Your task to perform on an android device: toggle improve location accuracy Image 0: 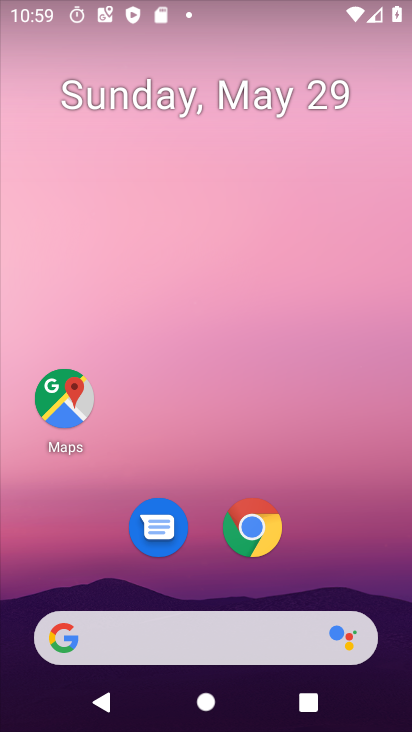
Step 0: drag from (338, 542) to (243, 129)
Your task to perform on an android device: toggle improve location accuracy Image 1: 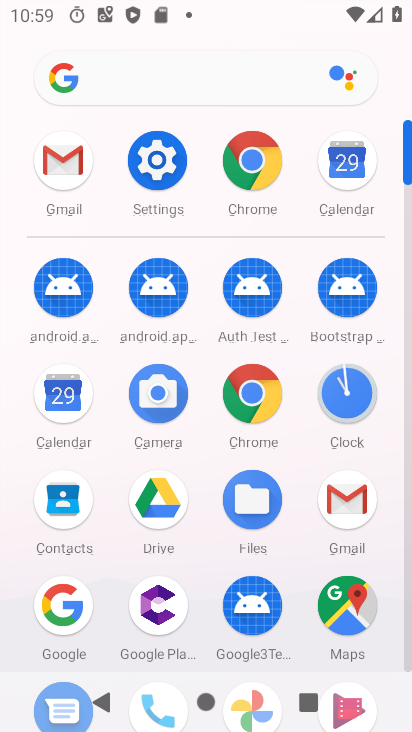
Step 1: click (151, 168)
Your task to perform on an android device: toggle improve location accuracy Image 2: 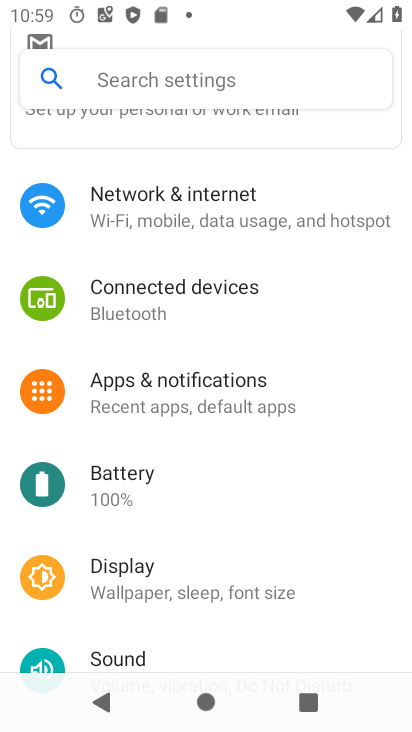
Step 2: drag from (231, 569) to (207, 239)
Your task to perform on an android device: toggle improve location accuracy Image 3: 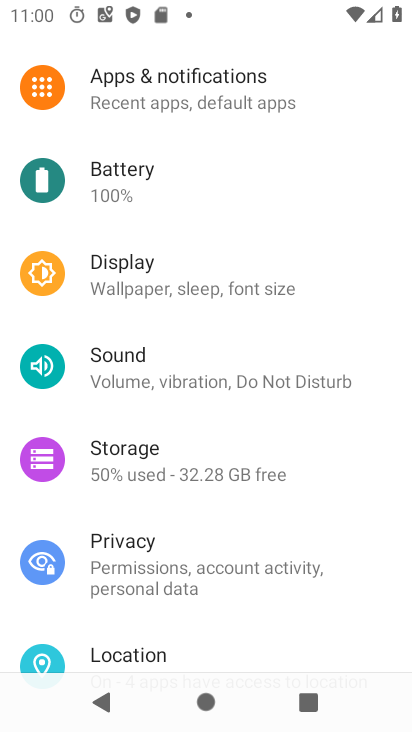
Step 3: click (157, 661)
Your task to perform on an android device: toggle improve location accuracy Image 4: 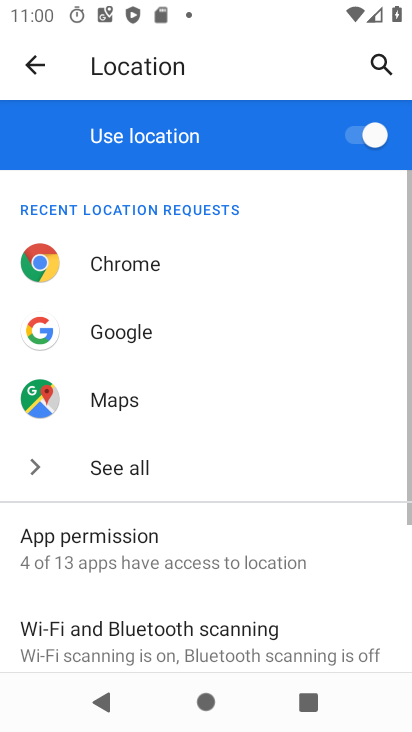
Step 4: drag from (239, 595) to (254, 180)
Your task to perform on an android device: toggle improve location accuracy Image 5: 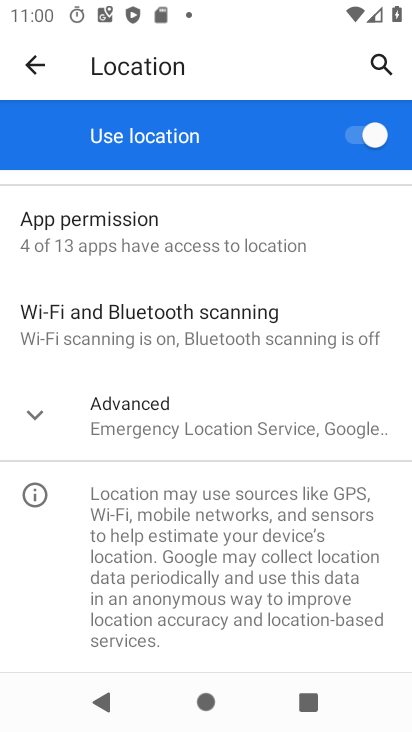
Step 5: click (240, 444)
Your task to perform on an android device: toggle improve location accuracy Image 6: 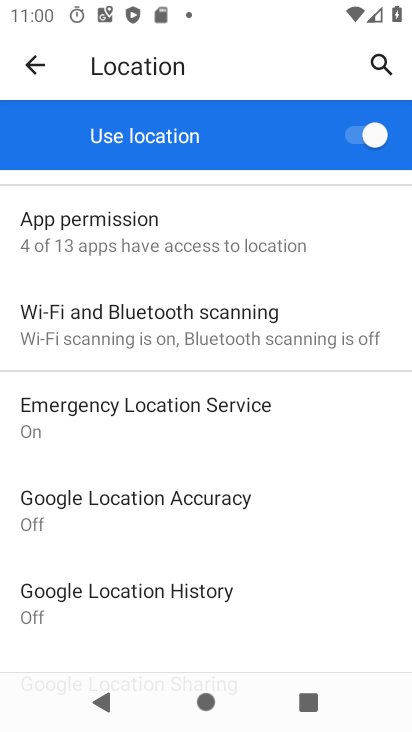
Step 6: click (213, 495)
Your task to perform on an android device: toggle improve location accuracy Image 7: 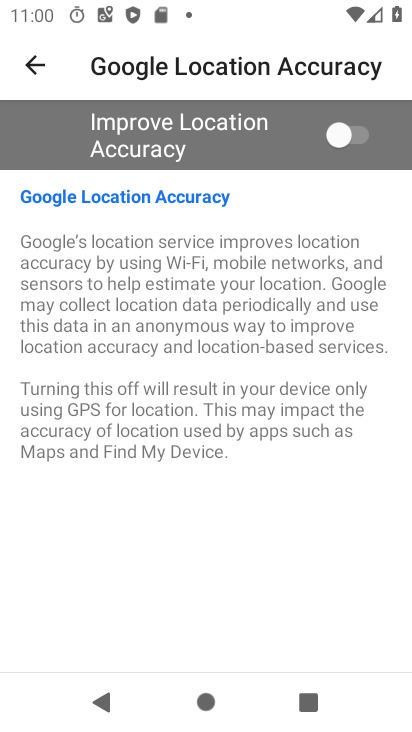
Step 7: click (352, 125)
Your task to perform on an android device: toggle improve location accuracy Image 8: 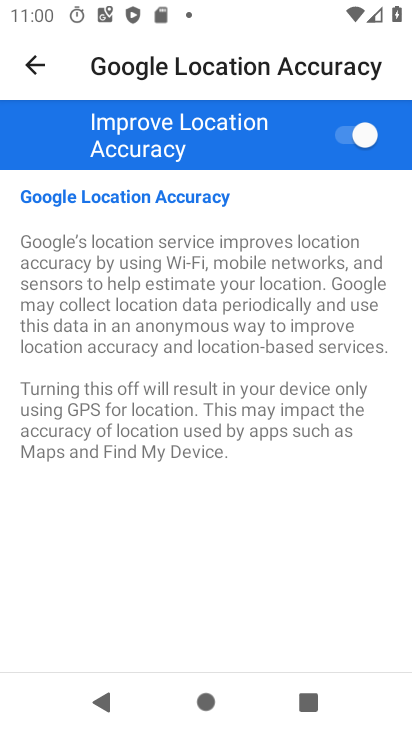
Step 8: task complete